Your task to perform on an android device: Open the phone app and click the voicemail tab. Image 0: 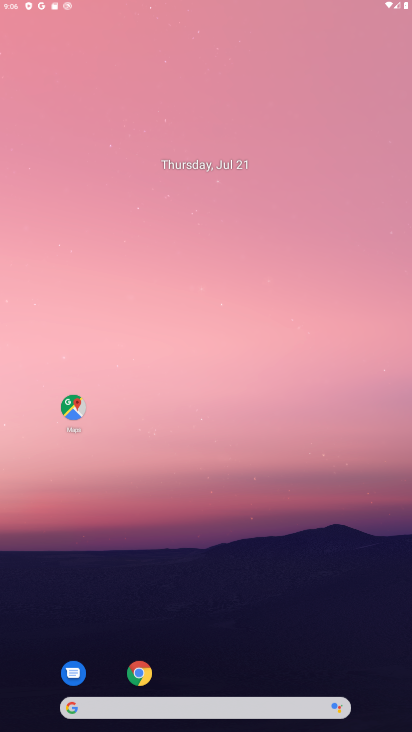
Step 0: press home button
Your task to perform on an android device: Open the phone app and click the voicemail tab. Image 1: 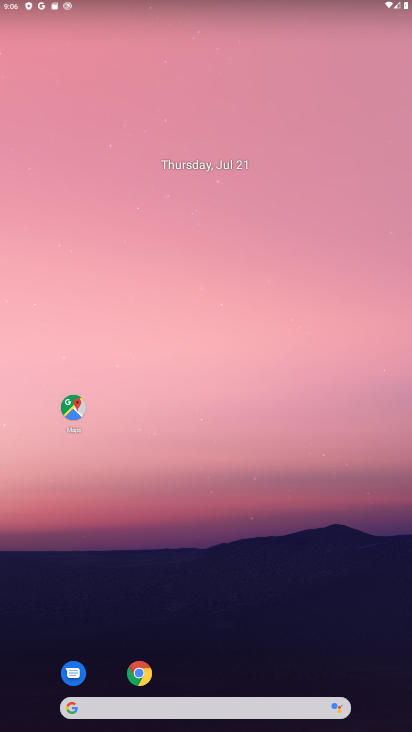
Step 1: drag from (194, 676) to (244, 3)
Your task to perform on an android device: Open the phone app and click the voicemail tab. Image 2: 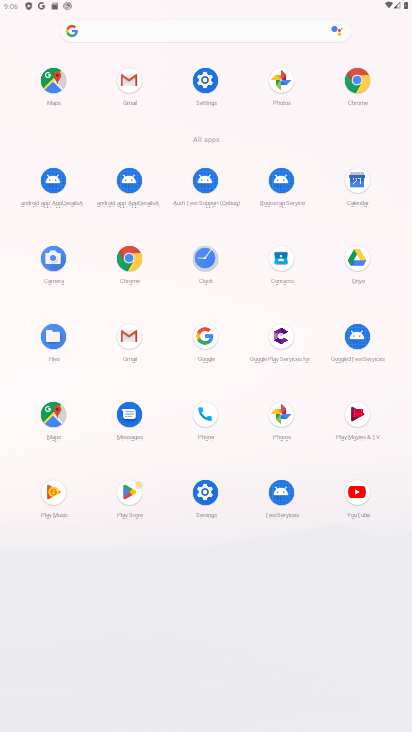
Step 2: click (202, 408)
Your task to perform on an android device: Open the phone app and click the voicemail tab. Image 3: 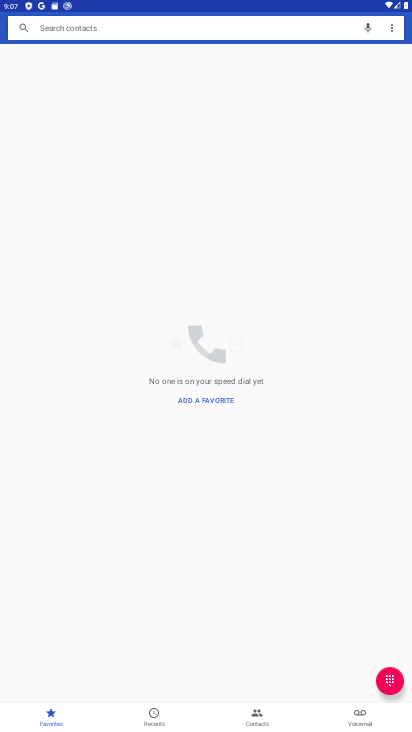
Step 3: press home button
Your task to perform on an android device: Open the phone app and click the voicemail tab. Image 4: 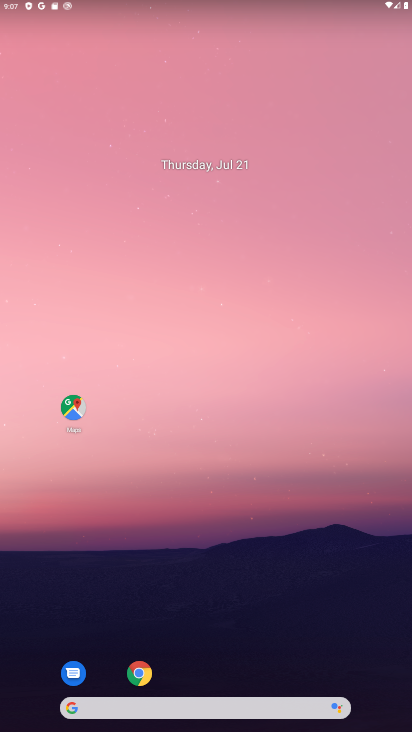
Step 4: drag from (190, 644) to (233, 152)
Your task to perform on an android device: Open the phone app and click the voicemail tab. Image 5: 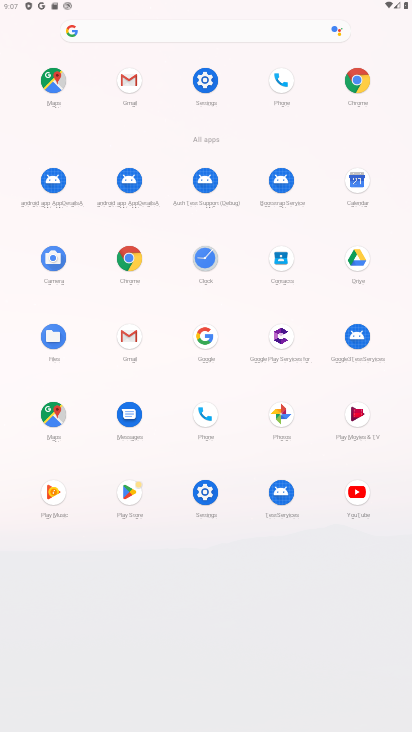
Step 5: click (204, 409)
Your task to perform on an android device: Open the phone app and click the voicemail tab. Image 6: 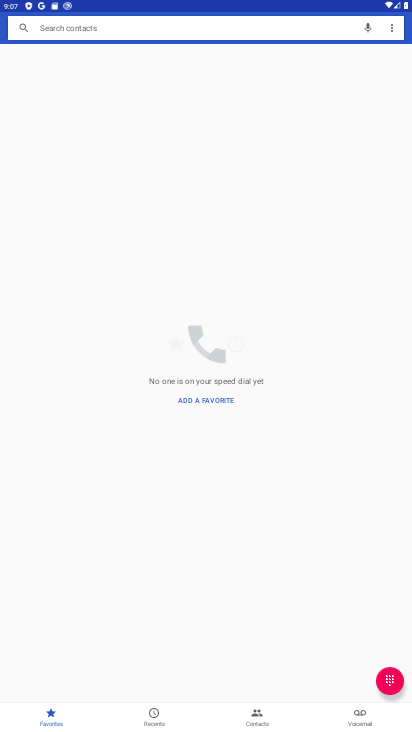
Step 6: click (358, 708)
Your task to perform on an android device: Open the phone app and click the voicemail tab. Image 7: 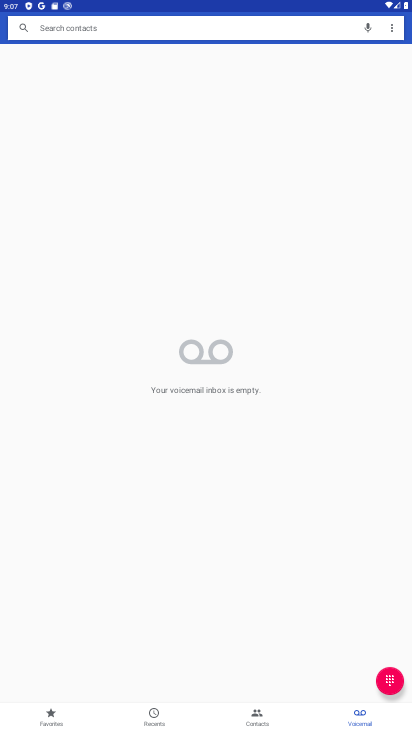
Step 7: task complete